Your task to perform on an android device: When is my next meeting? Image 0: 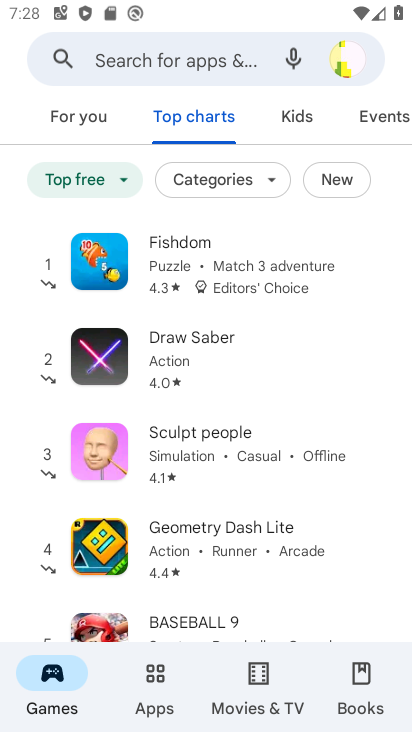
Step 0: press home button
Your task to perform on an android device: When is my next meeting? Image 1: 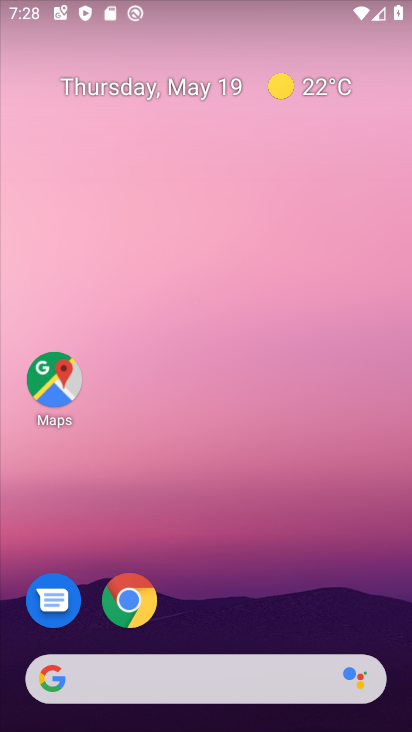
Step 1: drag from (328, 600) to (358, 215)
Your task to perform on an android device: When is my next meeting? Image 2: 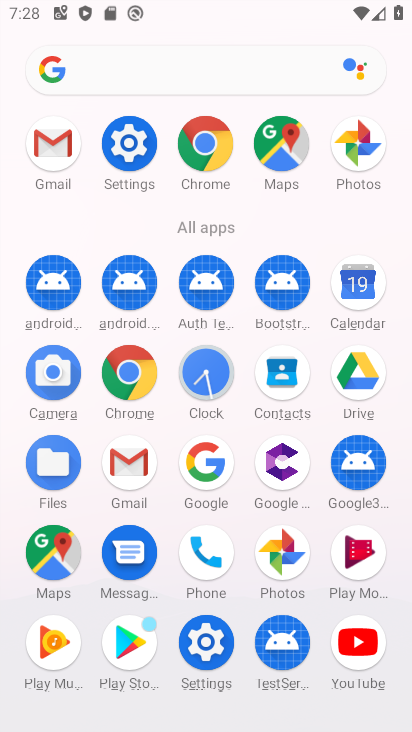
Step 2: click (114, 378)
Your task to perform on an android device: When is my next meeting? Image 3: 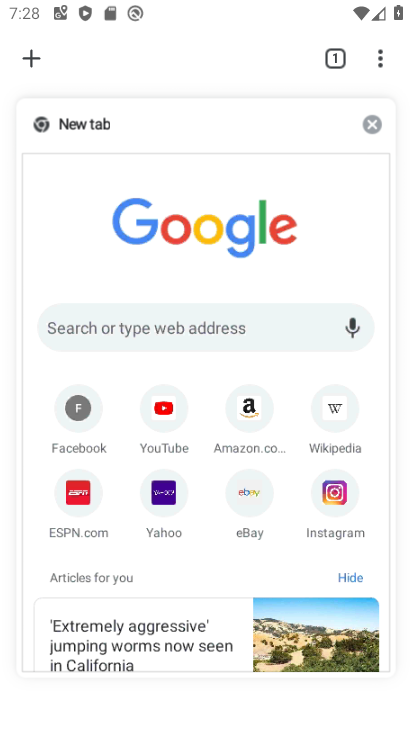
Step 3: press home button
Your task to perform on an android device: When is my next meeting? Image 4: 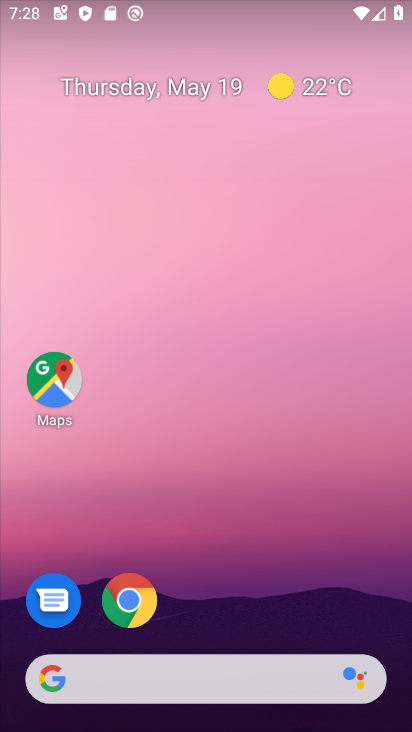
Step 4: drag from (245, 603) to (259, 200)
Your task to perform on an android device: When is my next meeting? Image 5: 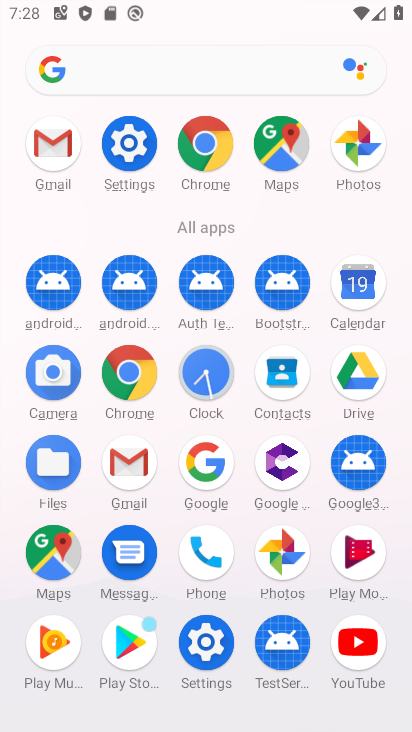
Step 5: click (347, 304)
Your task to perform on an android device: When is my next meeting? Image 6: 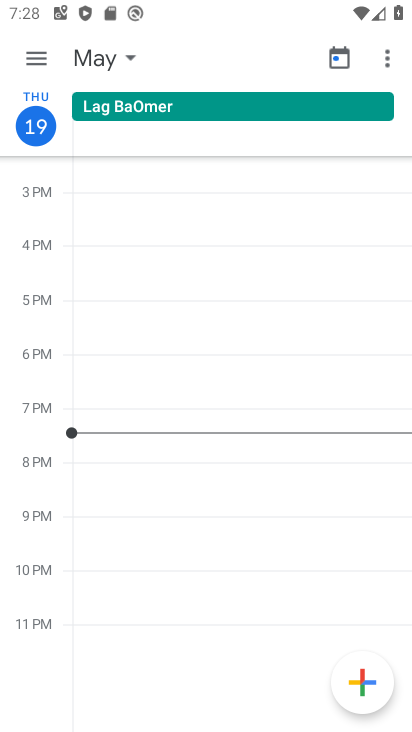
Step 6: click (38, 58)
Your task to perform on an android device: When is my next meeting? Image 7: 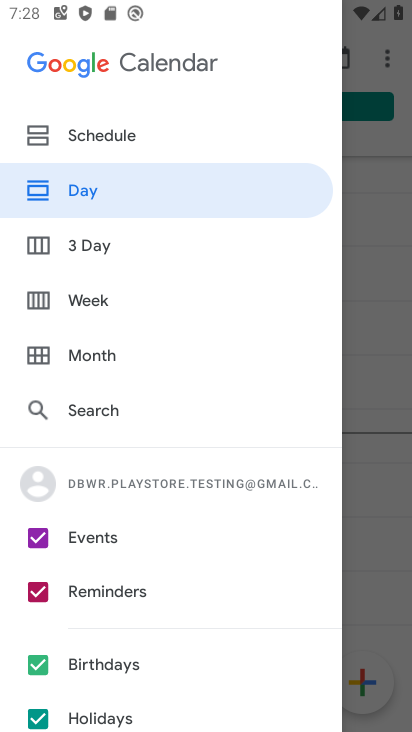
Step 7: click (101, 143)
Your task to perform on an android device: When is my next meeting? Image 8: 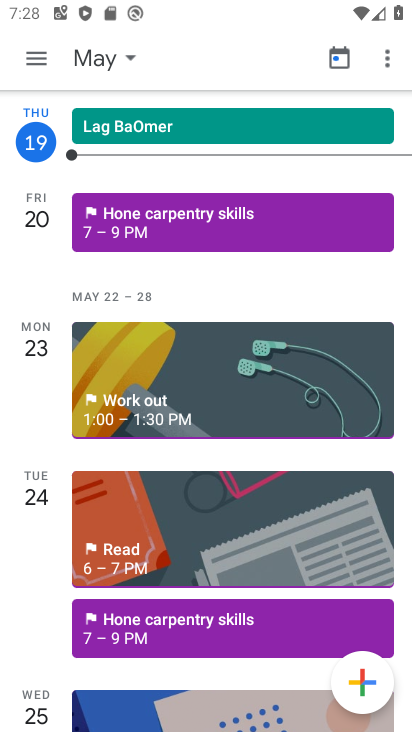
Step 8: click (98, 60)
Your task to perform on an android device: When is my next meeting? Image 9: 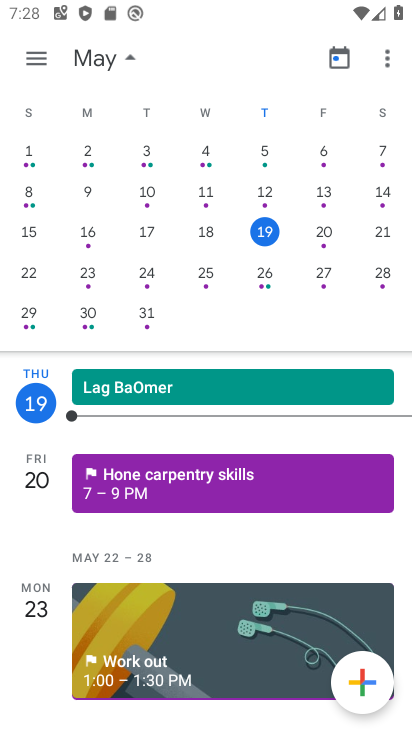
Step 9: drag from (139, 632) to (149, 280)
Your task to perform on an android device: When is my next meeting? Image 10: 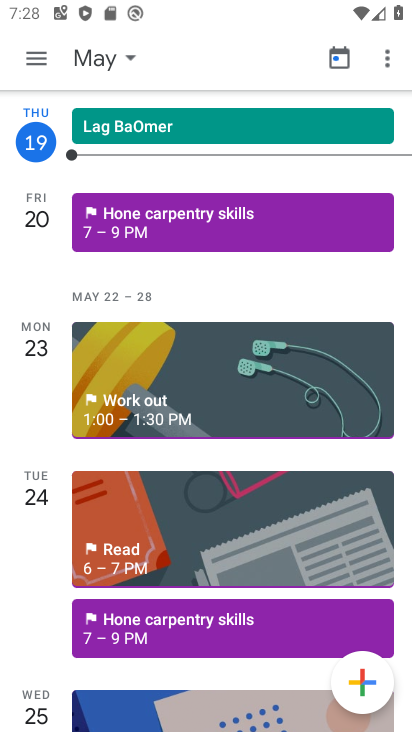
Step 10: drag from (171, 632) to (154, 304)
Your task to perform on an android device: When is my next meeting? Image 11: 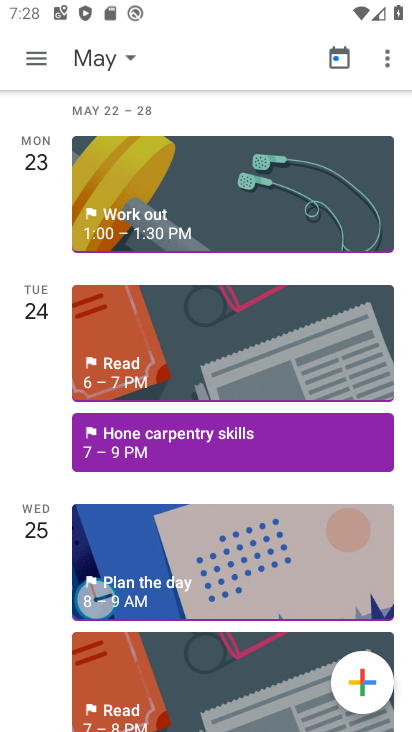
Step 11: drag from (157, 676) to (163, 389)
Your task to perform on an android device: When is my next meeting? Image 12: 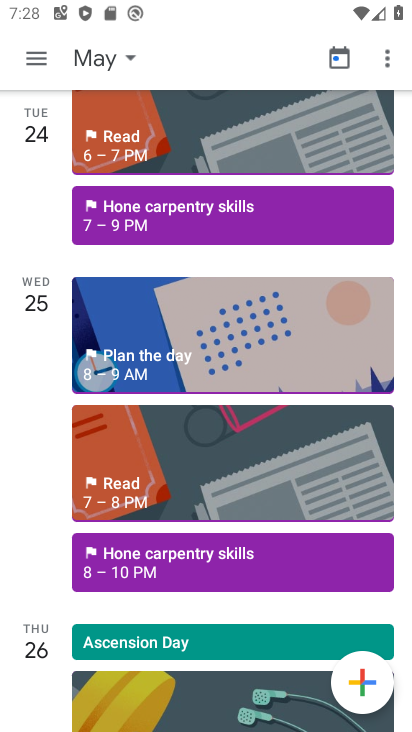
Step 12: drag from (129, 665) to (143, 382)
Your task to perform on an android device: When is my next meeting? Image 13: 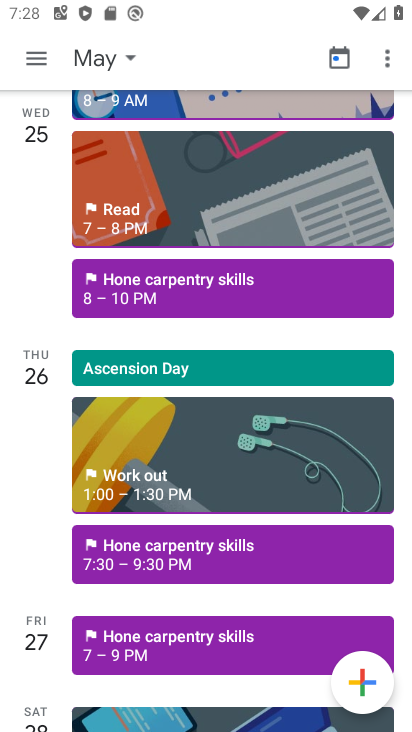
Step 13: drag from (171, 690) to (197, 258)
Your task to perform on an android device: When is my next meeting? Image 14: 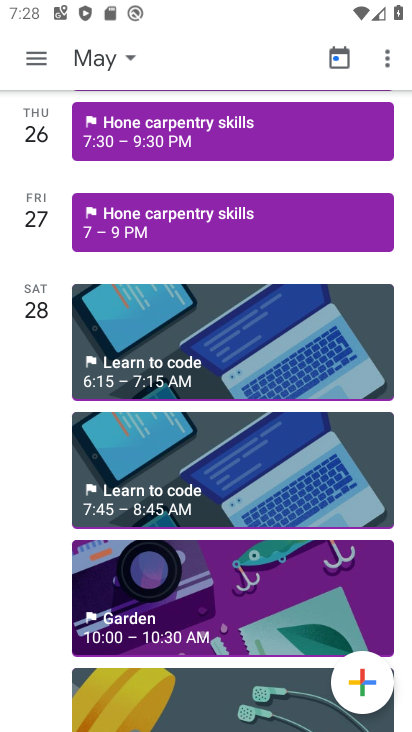
Step 14: drag from (157, 675) to (204, 233)
Your task to perform on an android device: When is my next meeting? Image 15: 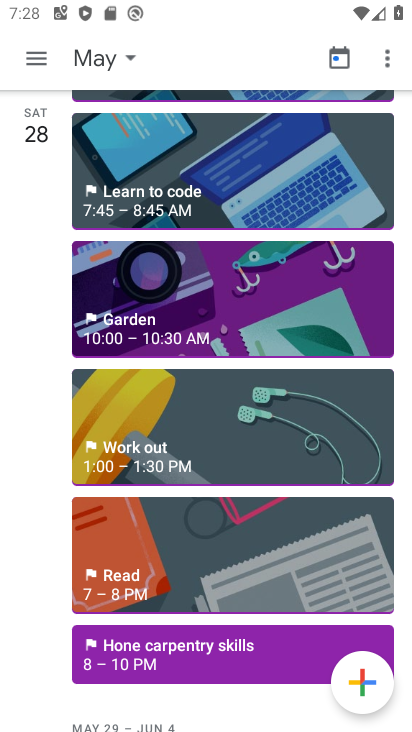
Step 15: drag from (154, 657) to (218, 309)
Your task to perform on an android device: When is my next meeting? Image 16: 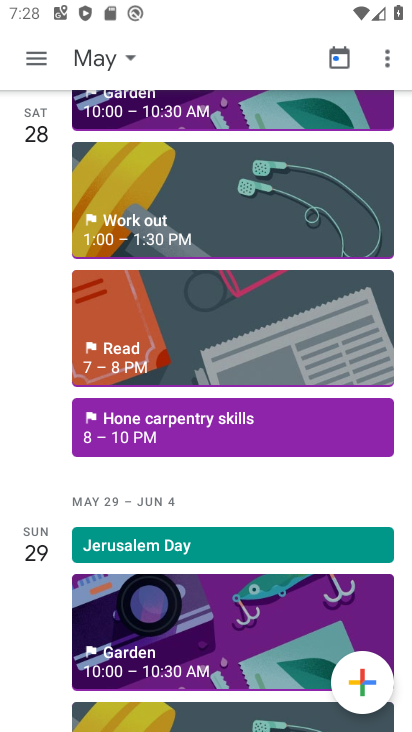
Step 16: drag from (219, 679) to (278, 220)
Your task to perform on an android device: When is my next meeting? Image 17: 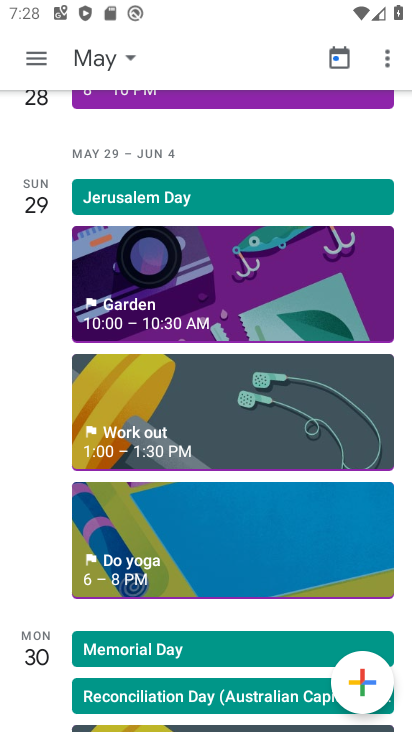
Step 17: drag from (186, 562) to (240, 194)
Your task to perform on an android device: When is my next meeting? Image 18: 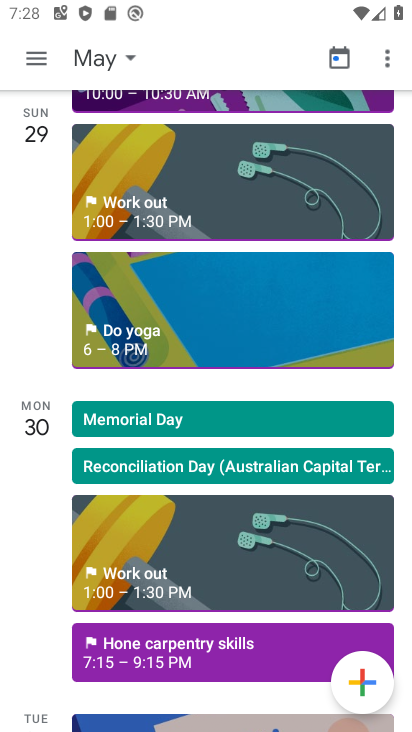
Step 18: drag from (210, 673) to (268, 270)
Your task to perform on an android device: When is my next meeting? Image 19: 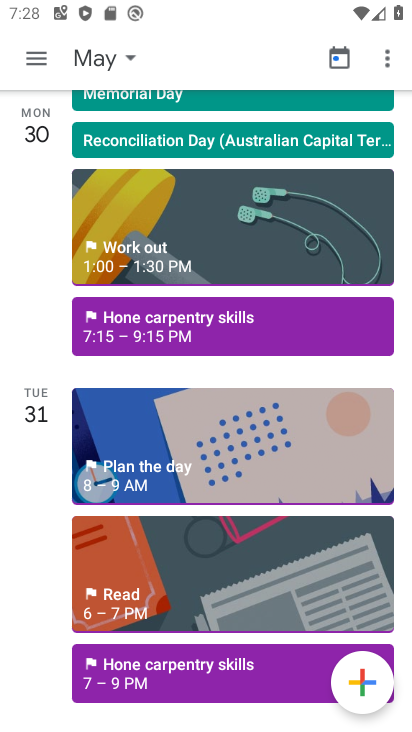
Step 19: drag from (228, 591) to (275, 216)
Your task to perform on an android device: When is my next meeting? Image 20: 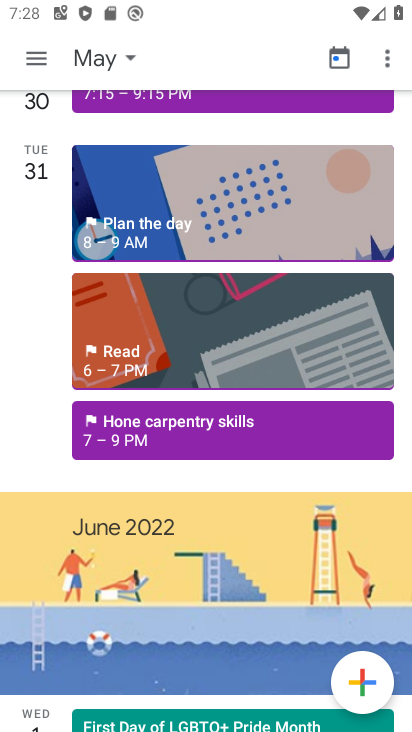
Step 20: drag from (216, 624) to (266, 168)
Your task to perform on an android device: When is my next meeting? Image 21: 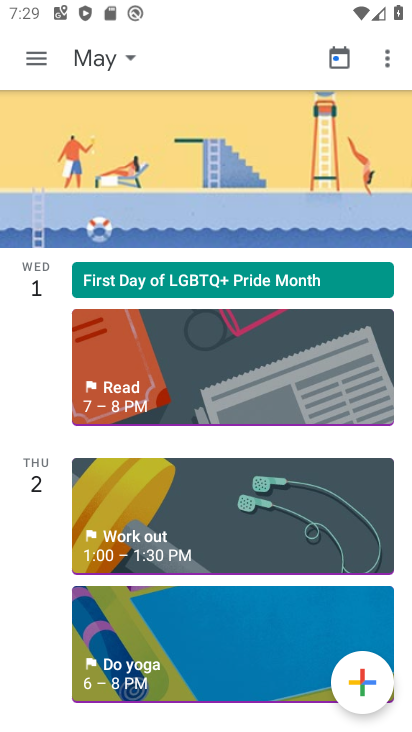
Step 21: drag from (178, 612) to (240, 205)
Your task to perform on an android device: When is my next meeting? Image 22: 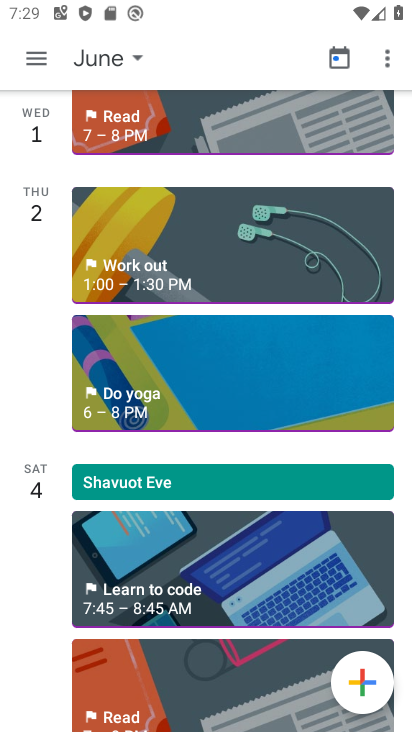
Step 22: drag from (168, 667) to (224, 248)
Your task to perform on an android device: When is my next meeting? Image 23: 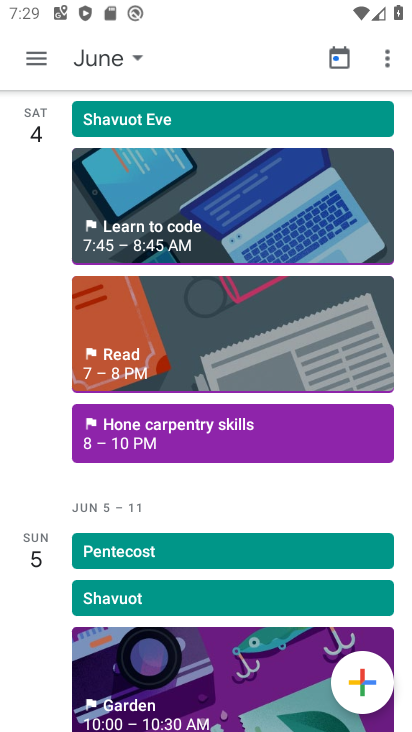
Step 23: drag from (195, 626) to (221, 209)
Your task to perform on an android device: When is my next meeting? Image 24: 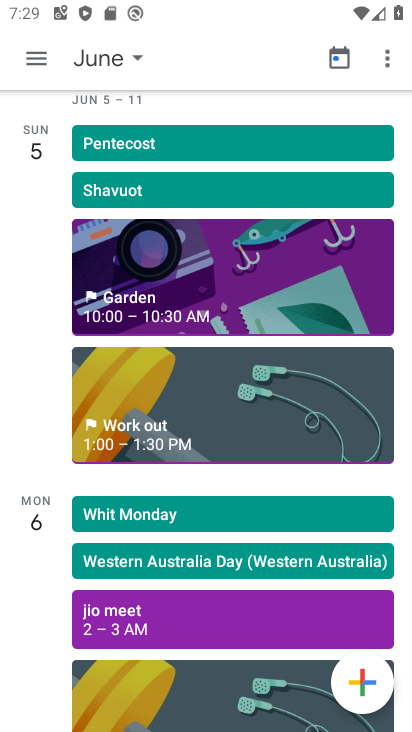
Step 24: click (140, 617)
Your task to perform on an android device: When is my next meeting? Image 25: 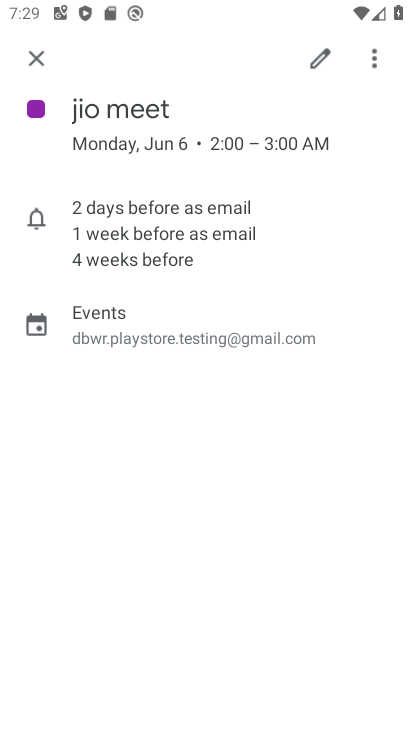
Step 25: task complete